Your task to perform on an android device: Show me the alarms in the clock app Image 0: 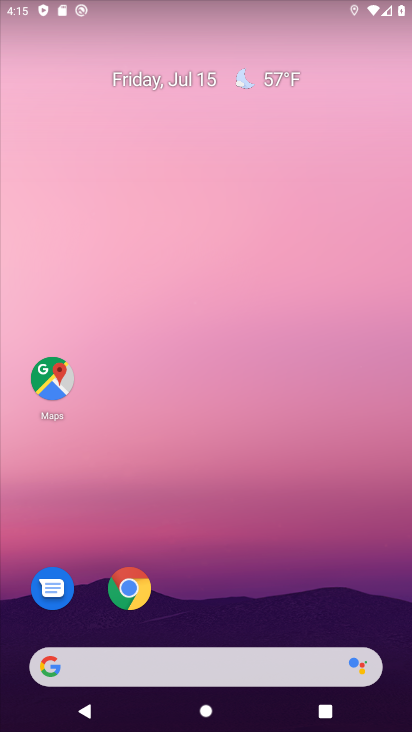
Step 0: drag from (192, 661) to (269, 150)
Your task to perform on an android device: Show me the alarms in the clock app Image 1: 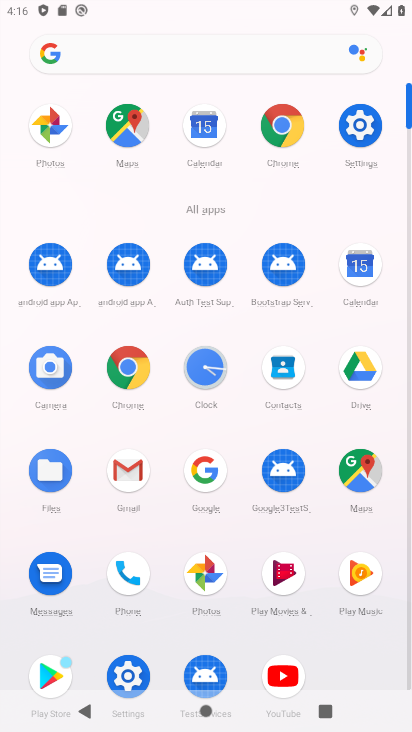
Step 1: click (205, 366)
Your task to perform on an android device: Show me the alarms in the clock app Image 2: 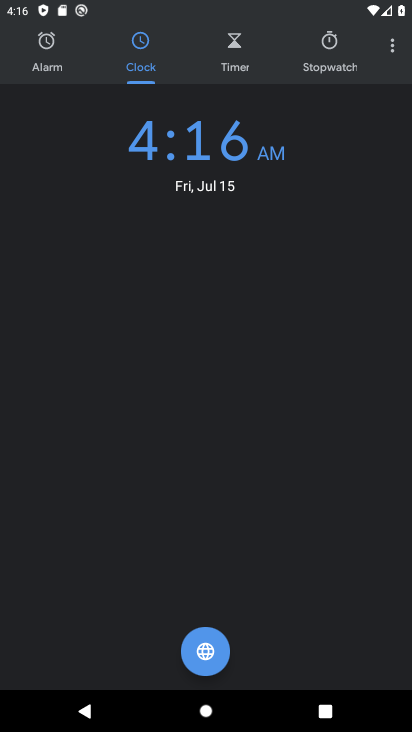
Step 2: click (42, 43)
Your task to perform on an android device: Show me the alarms in the clock app Image 3: 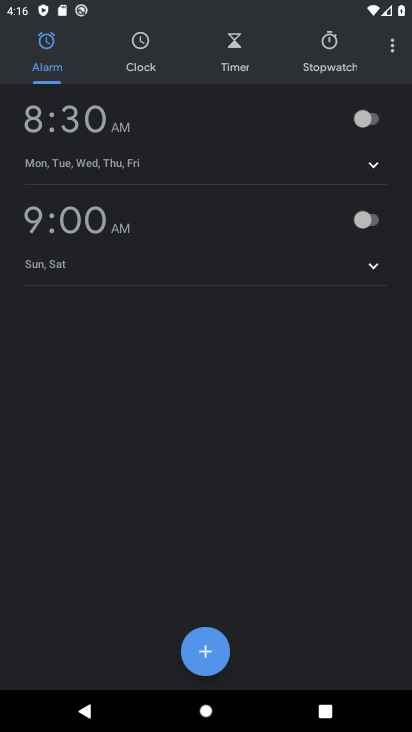
Step 3: click (206, 648)
Your task to perform on an android device: Show me the alarms in the clock app Image 4: 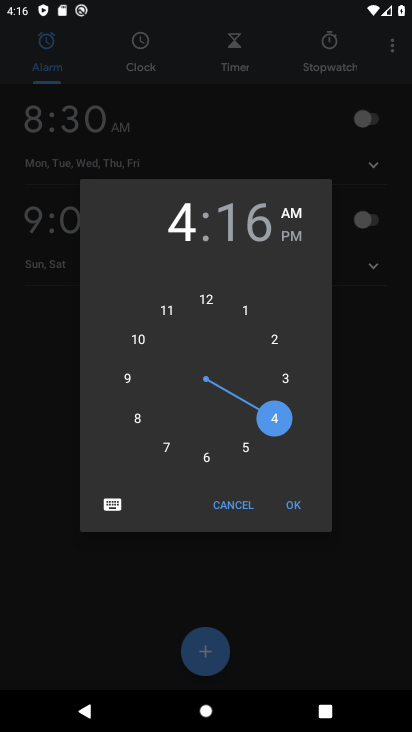
Step 4: click (206, 299)
Your task to perform on an android device: Show me the alarms in the clock app Image 5: 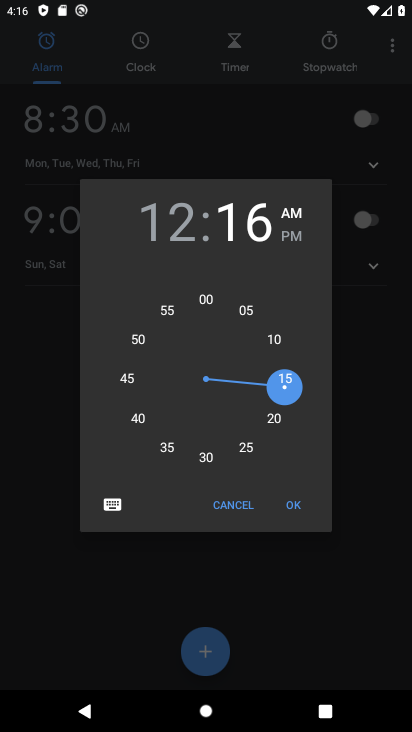
Step 5: click (202, 464)
Your task to perform on an android device: Show me the alarms in the clock app Image 6: 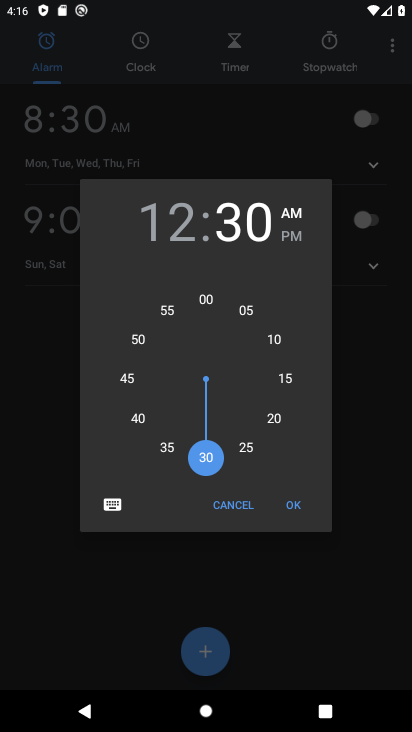
Step 6: click (291, 235)
Your task to perform on an android device: Show me the alarms in the clock app Image 7: 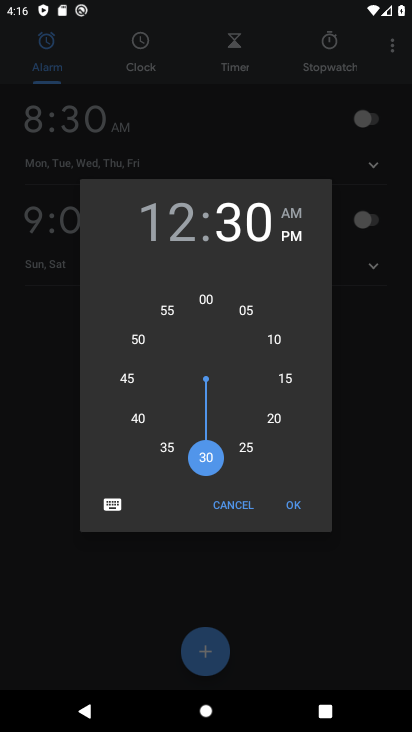
Step 7: click (293, 501)
Your task to perform on an android device: Show me the alarms in the clock app Image 8: 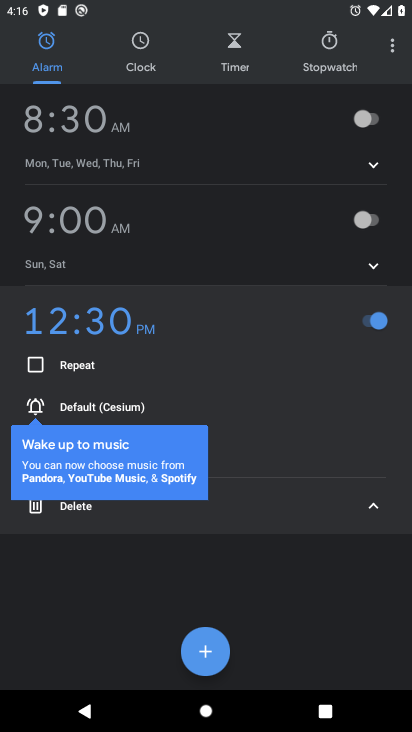
Step 8: click (377, 507)
Your task to perform on an android device: Show me the alarms in the clock app Image 9: 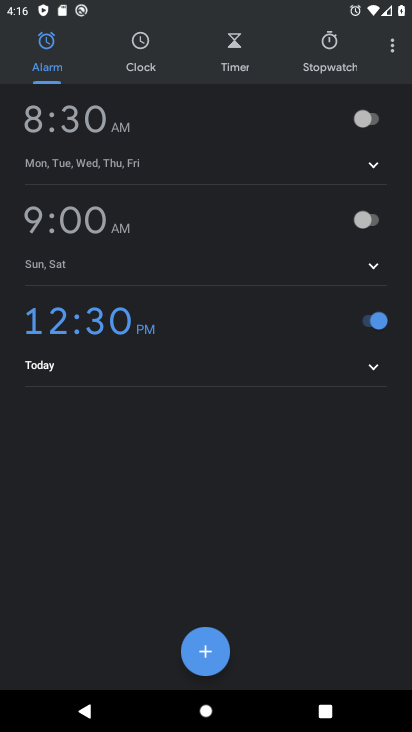
Step 9: task complete